Your task to perform on an android device: turn notification dots off Image 0: 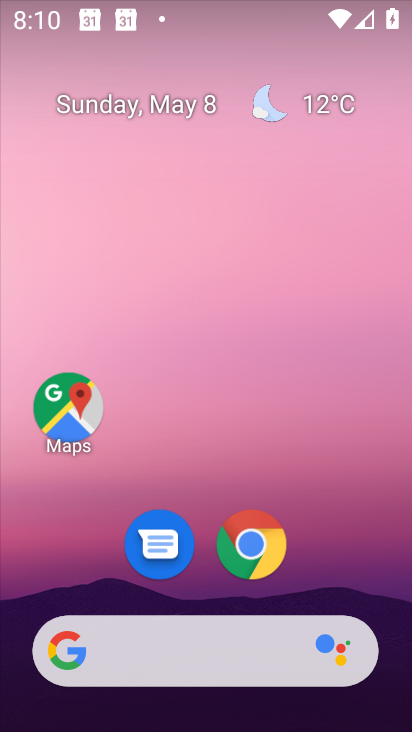
Step 0: drag from (336, 550) to (275, 121)
Your task to perform on an android device: turn notification dots off Image 1: 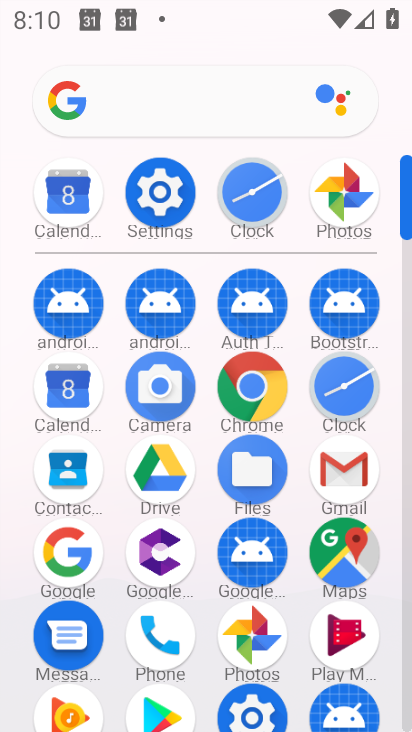
Step 1: click (162, 195)
Your task to perform on an android device: turn notification dots off Image 2: 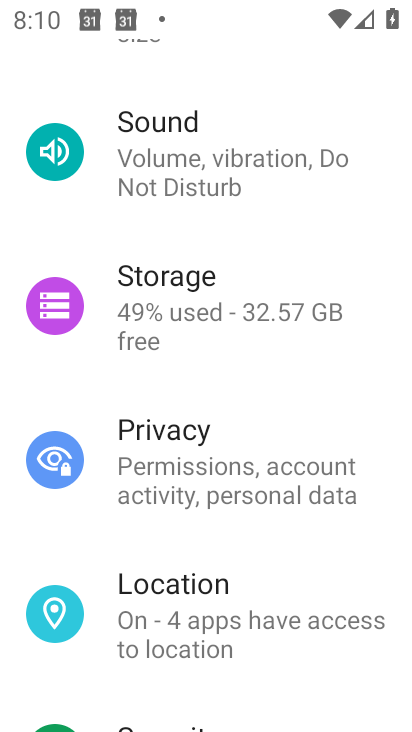
Step 2: drag from (265, 214) to (328, 702)
Your task to perform on an android device: turn notification dots off Image 3: 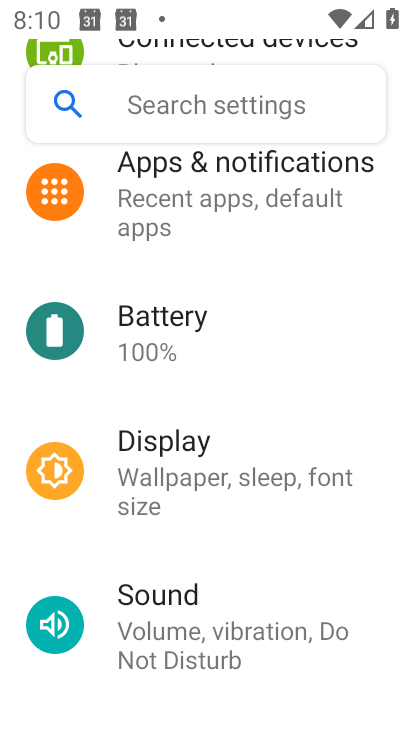
Step 3: click (253, 159)
Your task to perform on an android device: turn notification dots off Image 4: 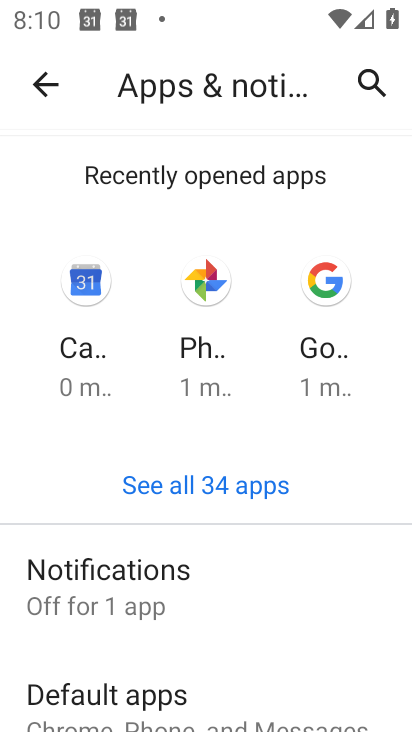
Step 4: click (115, 571)
Your task to perform on an android device: turn notification dots off Image 5: 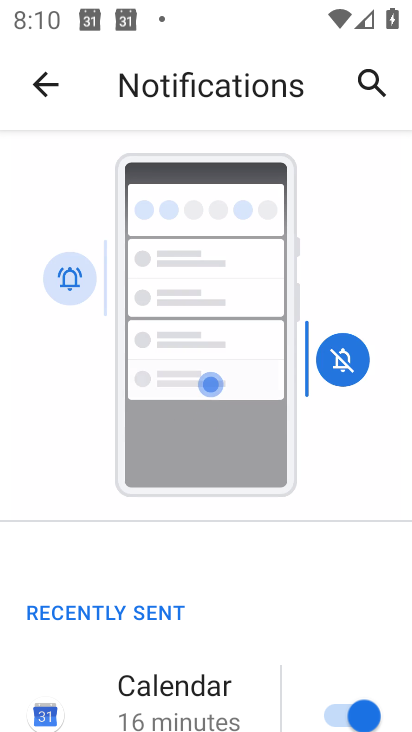
Step 5: drag from (273, 555) to (253, 224)
Your task to perform on an android device: turn notification dots off Image 6: 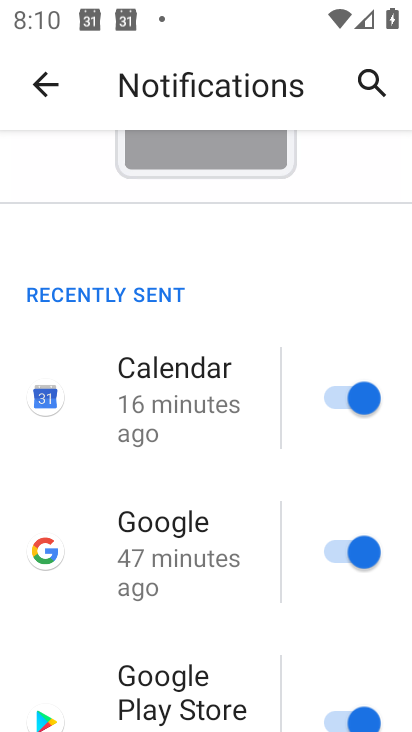
Step 6: drag from (256, 611) to (253, 367)
Your task to perform on an android device: turn notification dots off Image 7: 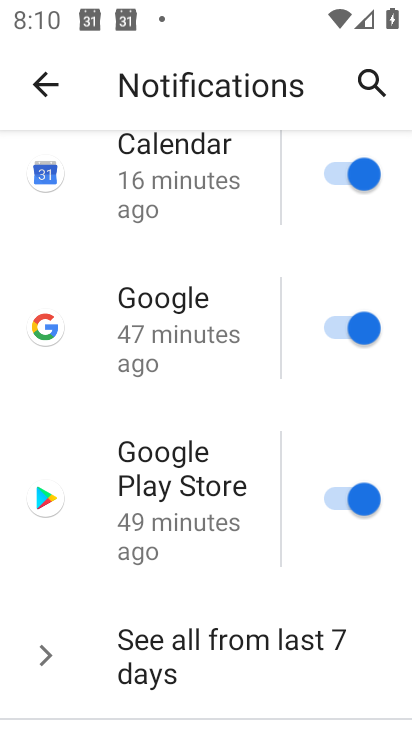
Step 7: drag from (269, 576) to (270, 346)
Your task to perform on an android device: turn notification dots off Image 8: 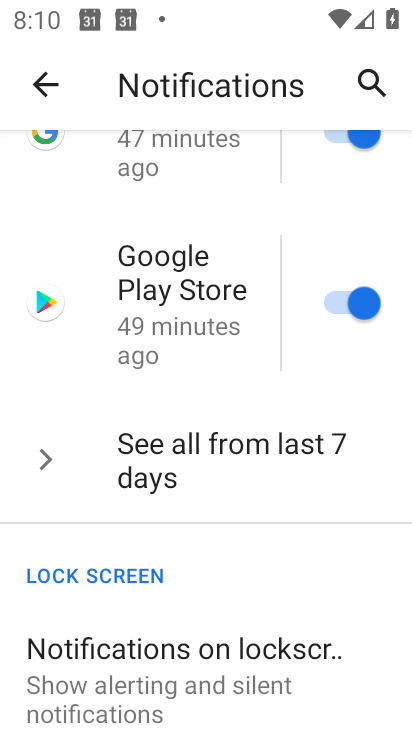
Step 8: drag from (246, 588) to (223, 340)
Your task to perform on an android device: turn notification dots off Image 9: 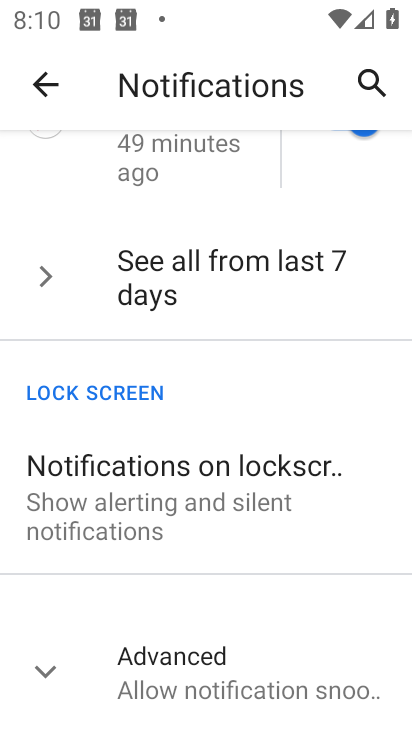
Step 9: click (55, 674)
Your task to perform on an android device: turn notification dots off Image 10: 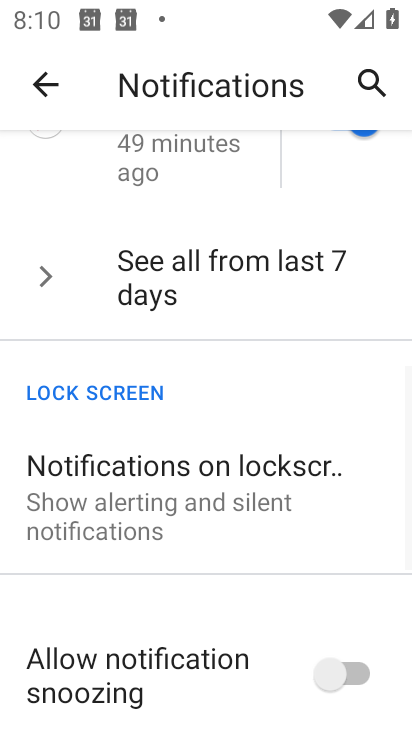
Step 10: task complete